Your task to perform on an android device: Search for pizza restaurants on Maps Image 0: 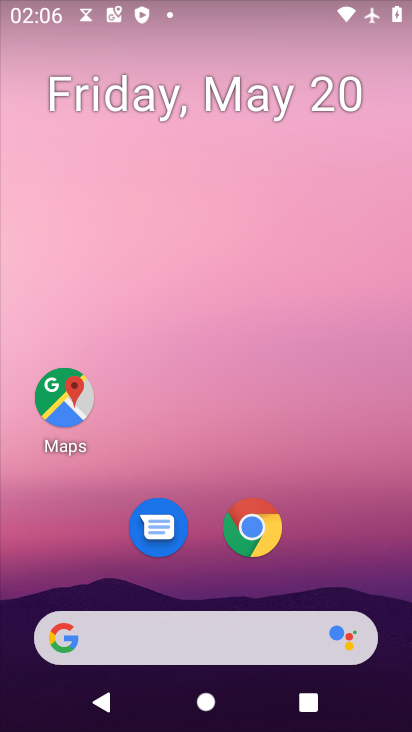
Step 0: press home button
Your task to perform on an android device: Search for pizza restaurants on Maps Image 1: 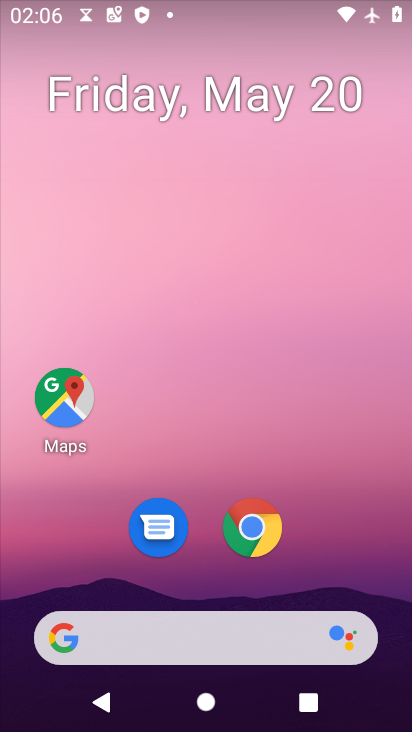
Step 1: click (67, 407)
Your task to perform on an android device: Search for pizza restaurants on Maps Image 2: 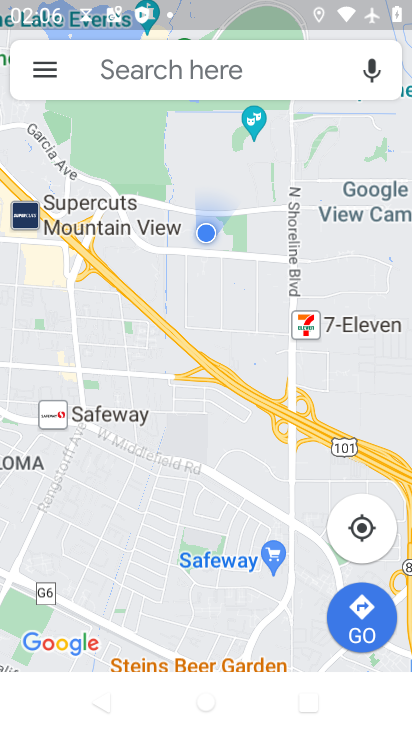
Step 2: click (223, 79)
Your task to perform on an android device: Search for pizza restaurants on Maps Image 3: 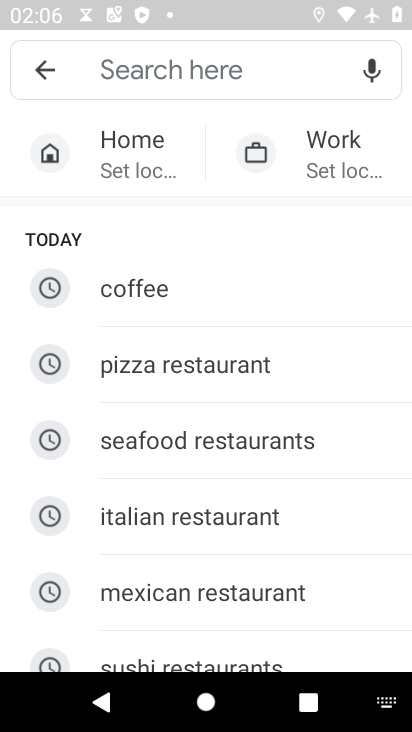
Step 3: click (174, 370)
Your task to perform on an android device: Search for pizza restaurants on Maps Image 4: 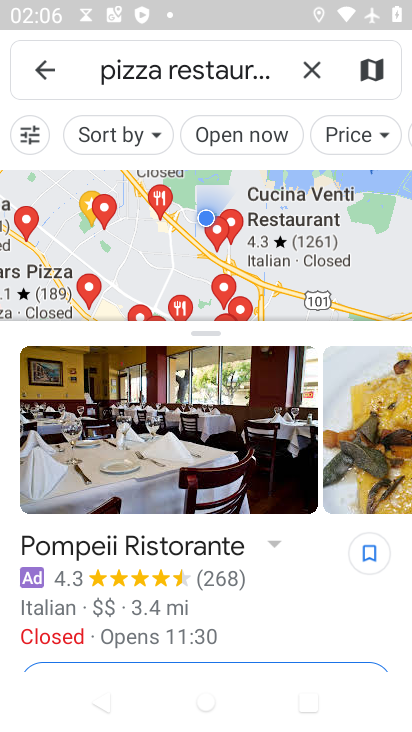
Step 4: task complete